Your task to perform on an android device: change timer sound Image 0: 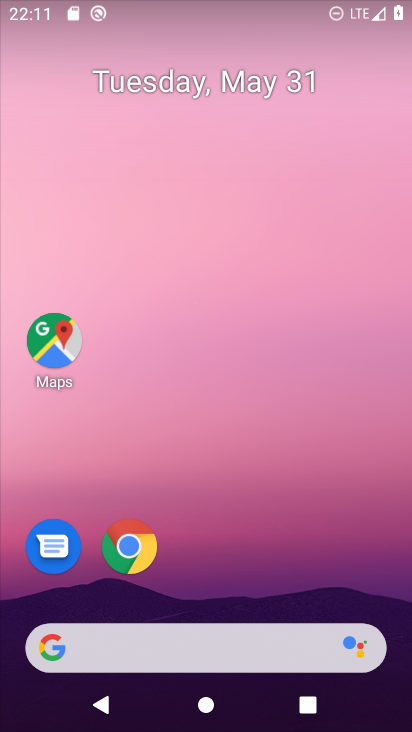
Step 0: drag from (397, 695) to (357, 88)
Your task to perform on an android device: change timer sound Image 1: 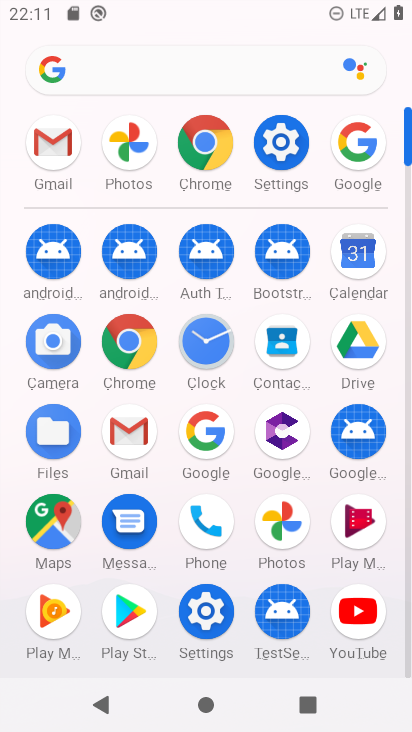
Step 1: click (213, 344)
Your task to perform on an android device: change timer sound Image 2: 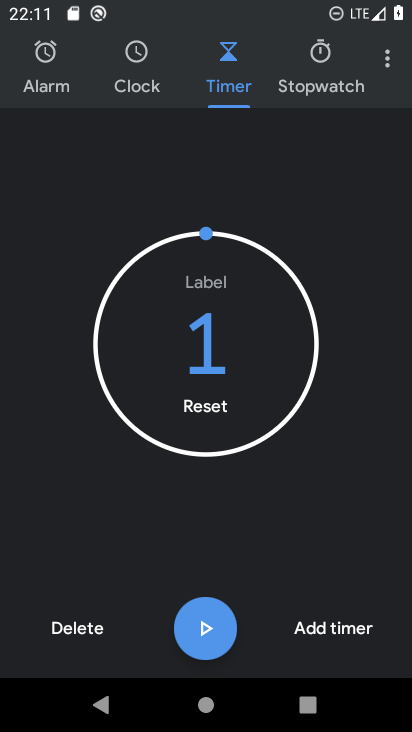
Step 2: click (389, 51)
Your task to perform on an android device: change timer sound Image 3: 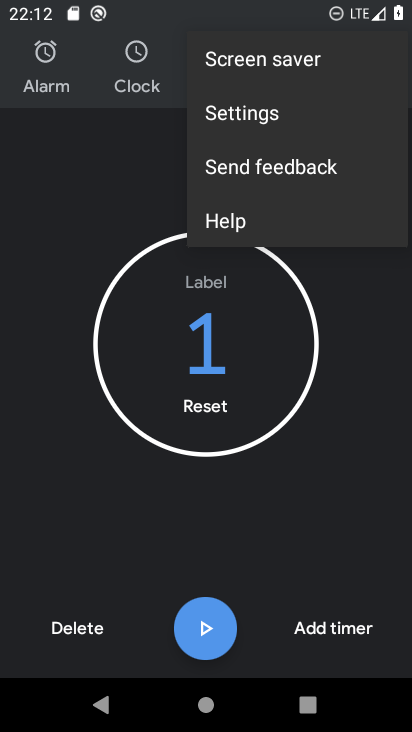
Step 3: click (249, 113)
Your task to perform on an android device: change timer sound Image 4: 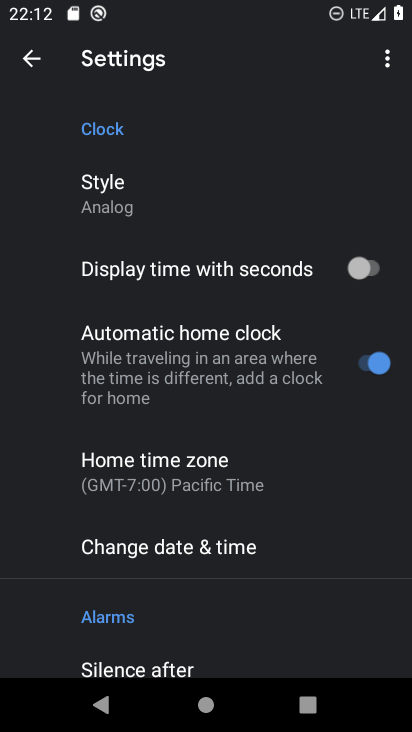
Step 4: drag from (245, 623) to (238, 353)
Your task to perform on an android device: change timer sound Image 5: 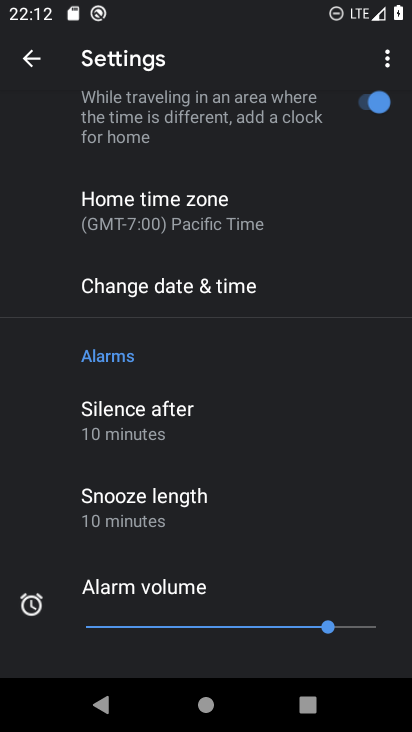
Step 5: drag from (266, 579) to (278, 284)
Your task to perform on an android device: change timer sound Image 6: 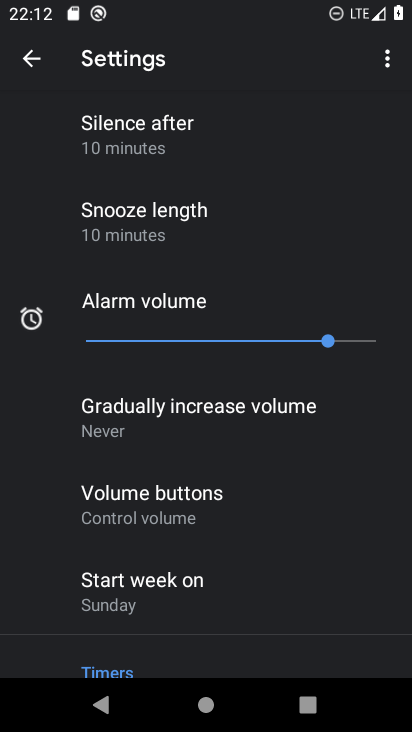
Step 6: drag from (261, 587) to (287, 275)
Your task to perform on an android device: change timer sound Image 7: 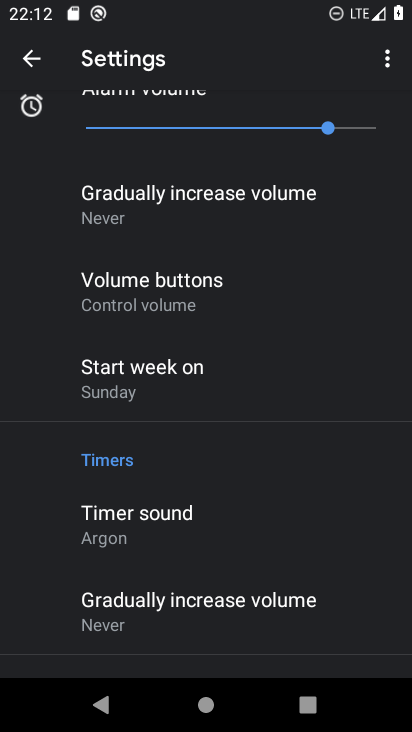
Step 7: click (147, 521)
Your task to perform on an android device: change timer sound Image 8: 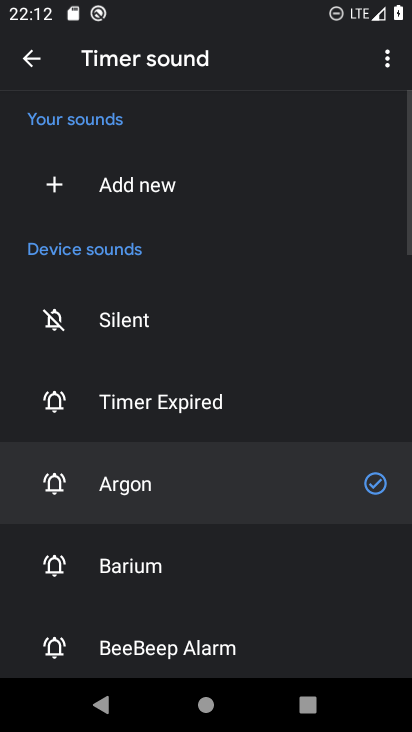
Step 8: click (129, 569)
Your task to perform on an android device: change timer sound Image 9: 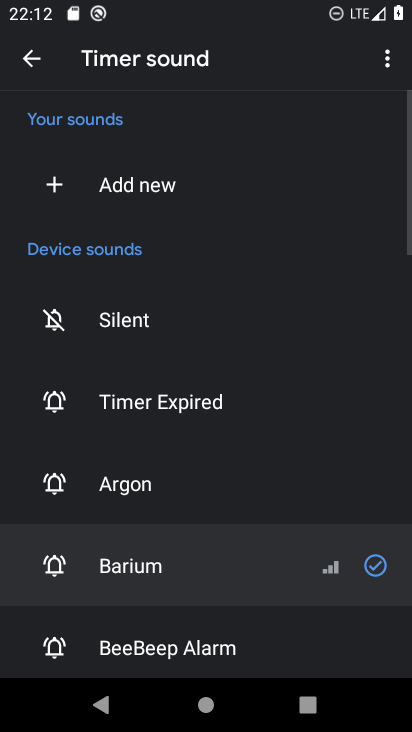
Step 9: task complete